Your task to perform on an android device: turn on javascript in the chrome app Image 0: 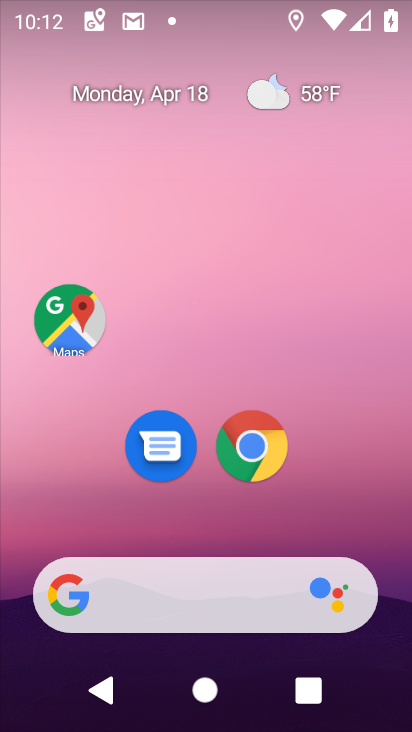
Step 0: drag from (384, 517) to (367, 162)
Your task to perform on an android device: turn on javascript in the chrome app Image 1: 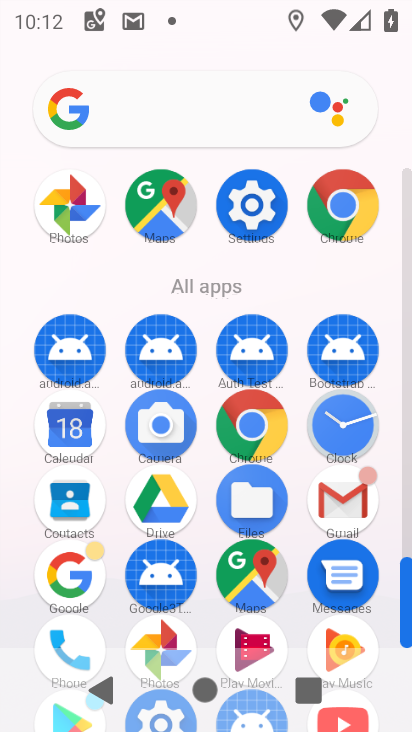
Step 1: click (262, 438)
Your task to perform on an android device: turn on javascript in the chrome app Image 2: 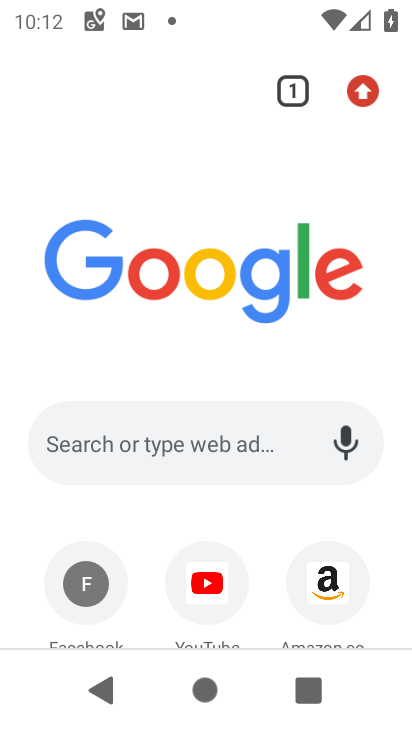
Step 2: click (367, 91)
Your task to perform on an android device: turn on javascript in the chrome app Image 3: 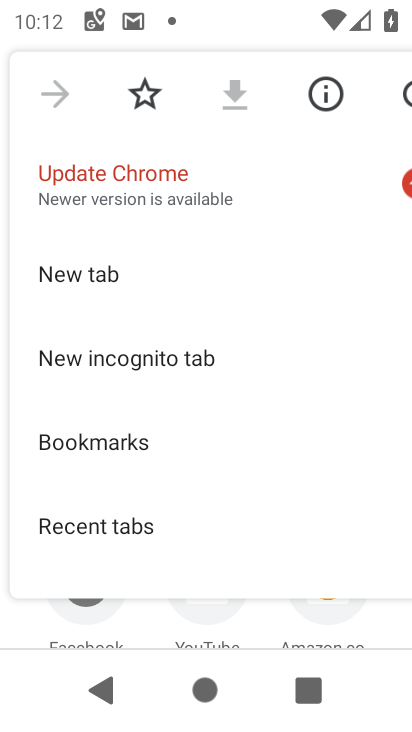
Step 3: drag from (314, 501) to (308, 315)
Your task to perform on an android device: turn on javascript in the chrome app Image 4: 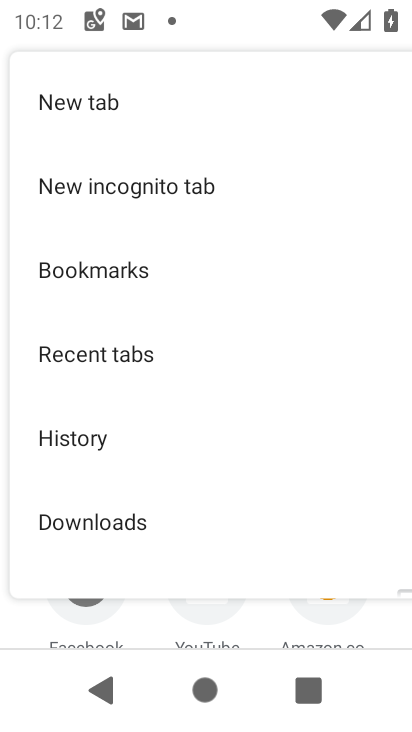
Step 4: drag from (294, 506) to (305, 342)
Your task to perform on an android device: turn on javascript in the chrome app Image 5: 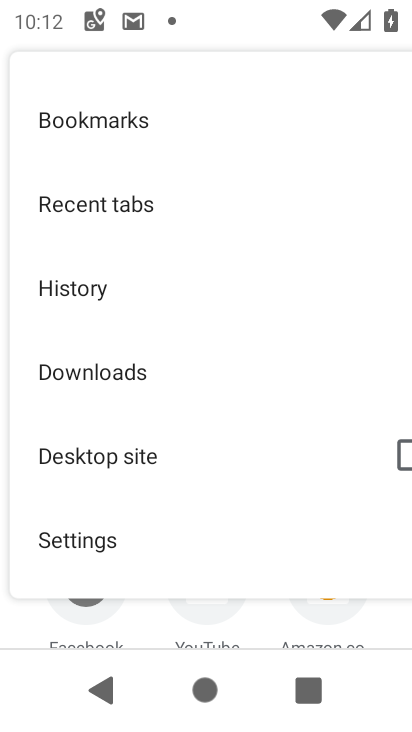
Step 5: click (113, 544)
Your task to perform on an android device: turn on javascript in the chrome app Image 6: 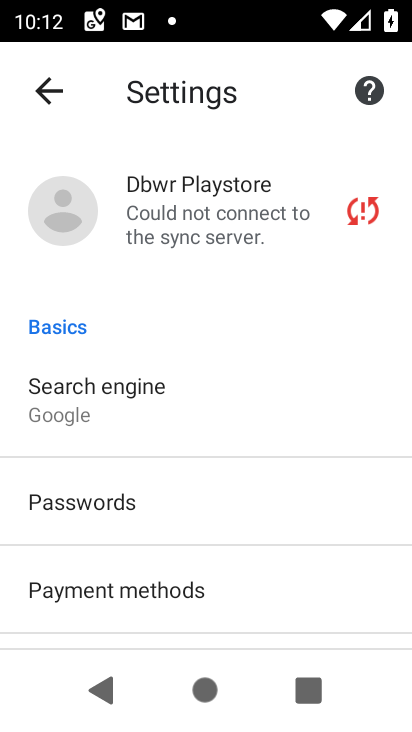
Step 6: drag from (302, 565) to (285, 417)
Your task to perform on an android device: turn on javascript in the chrome app Image 7: 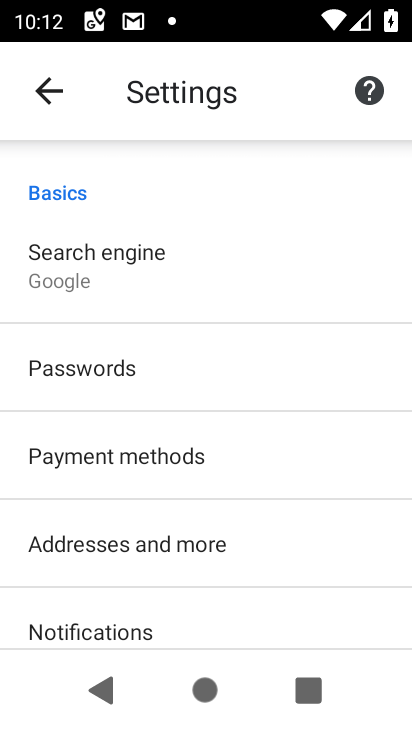
Step 7: drag from (303, 599) to (293, 398)
Your task to perform on an android device: turn on javascript in the chrome app Image 8: 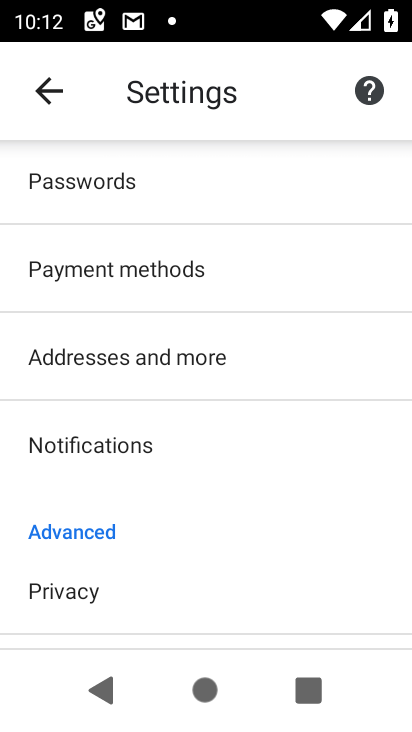
Step 8: drag from (272, 543) to (276, 361)
Your task to perform on an android device: turn on javascript in the chrome app Image 9: 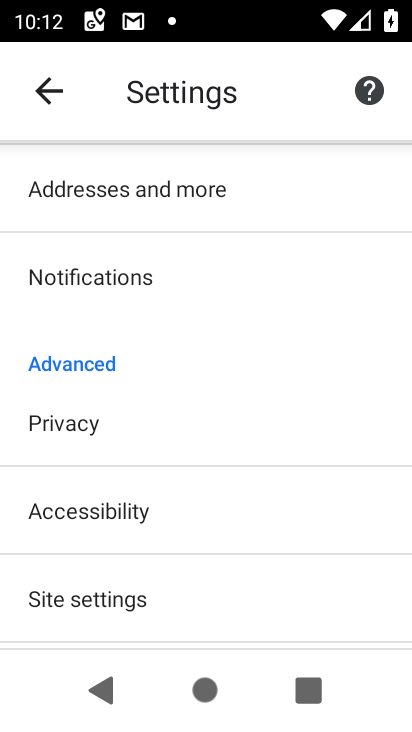
Step 9: drag from (296, 560) to (307, 362)
Your task to perform on an android device: turn on javascript in the chrome app Image 10: 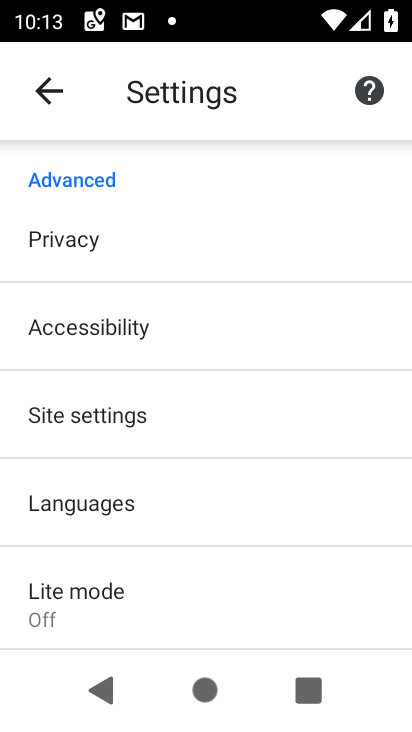
Step 10: click (249, 420)
Your task to perform on an android device: turn on javascript in the chrome app Image 11: 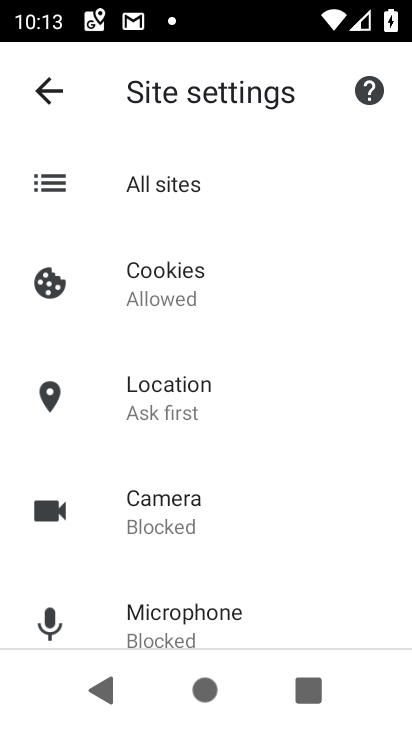
Step 11: drag from (319, 557) to (330, 367)
Your task to perform on an android device: turn on javascript in the chrome app Image 12: 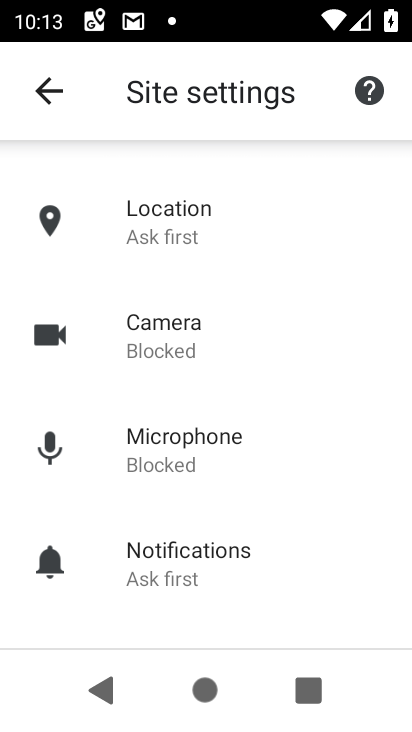
Step 12: drag from (319, 552) to (316, 394)
Your task to perform on an android device: turn on javascript in the chrome app Image 13: 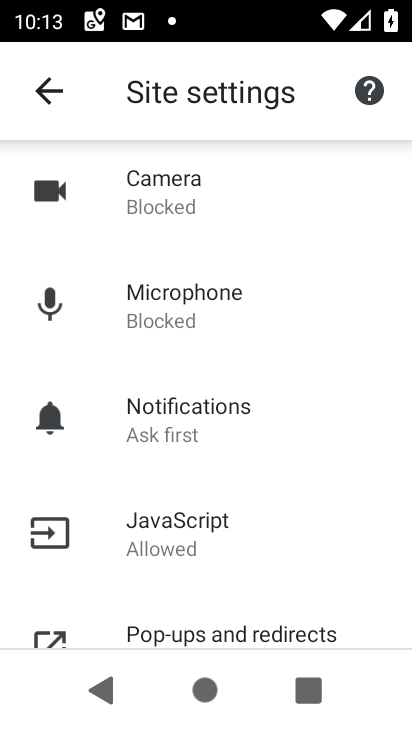
Step 13: click (170, 530)
Your task to perform on an android device: turn on javascript in the chrome app Image 14: 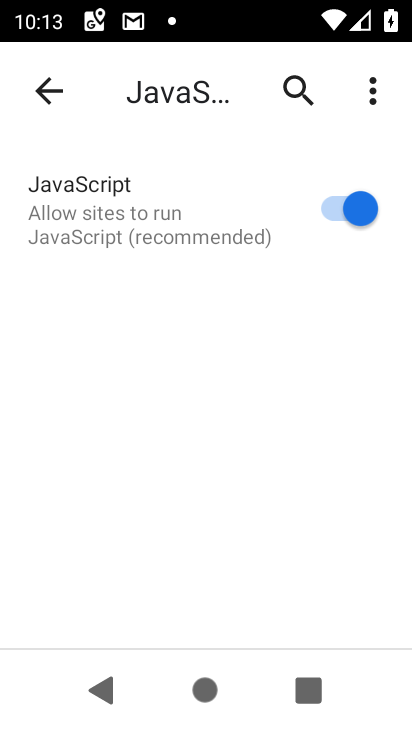
Step 14: task complete